Your task to perform on an android device: see sites visited before in the chrome app Image 0: 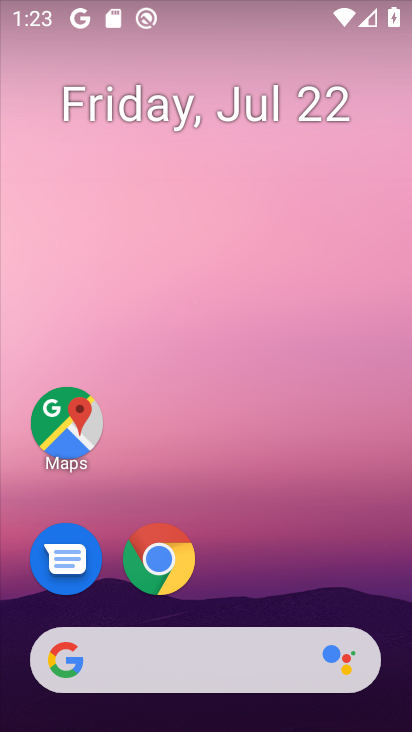
Step 0: click (175, 565)
Your task to perform on an android device: see sites visited before in the chrome app Image 1: 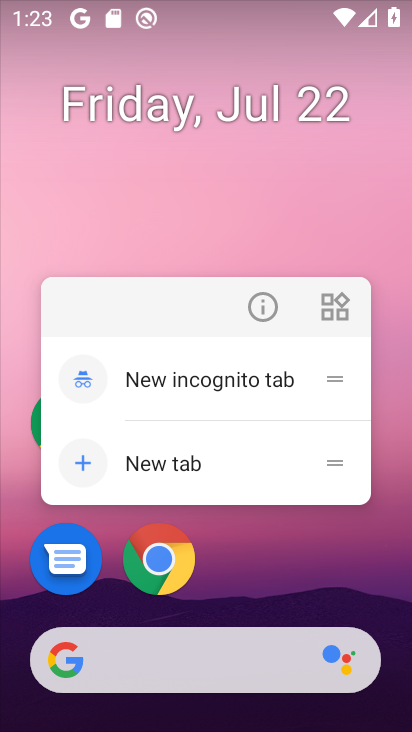
Step 1: click (160, 554)
Your task to perform on an android device: see sites visited before in the chrome app Image 2: 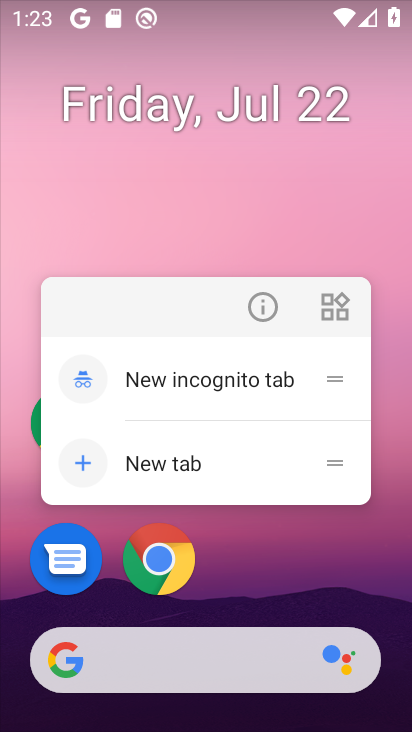
Step 2: click (161, 570)
Your task to perform on an android device: see sites visited before in the chrome app Image 3: 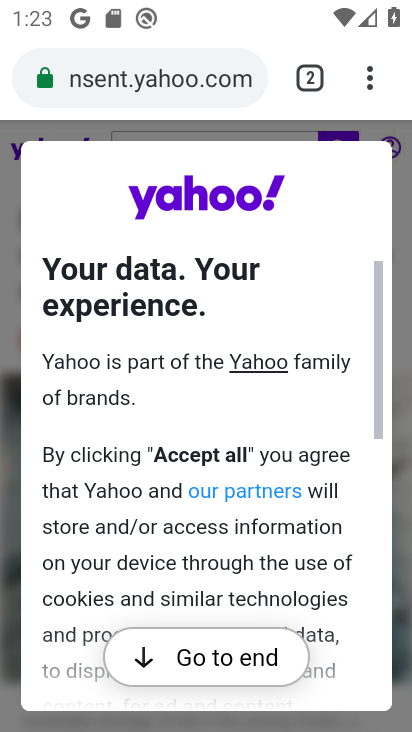
Step 3: task complete